Your task to perform on an android device: open a bookmark in the chrome app Image 0: 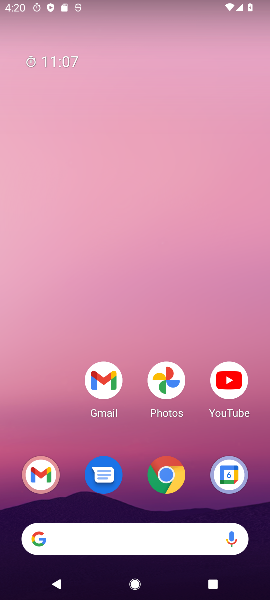
Step 0: click (159, 484)
Your task to perform on an android device: open a bookmark in the chrome app Image 1: 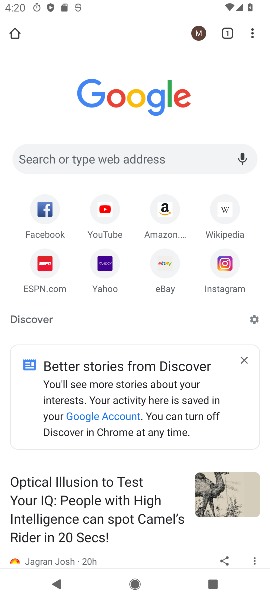
Step 1: click (245, 27)
Your task to perform on an android device: open a bookmark in the chrome app Image 2: 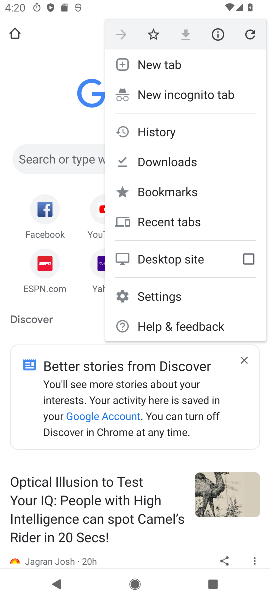
Step 2: click (175, 189)
Your task to perform on an android device: open a bookmark in the chrome app Image 3: 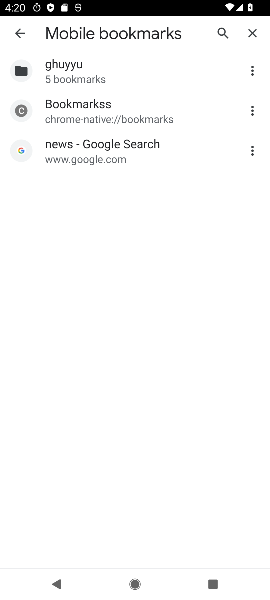
Step 3: click (115, 153)
Your task to perform on an android device: open a bookmark in the chrome app Image 4: 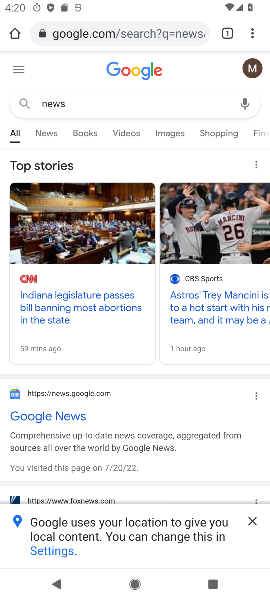
Step 4: task complete